Your task to perform on an android device: change the clock display to analog Image 0: 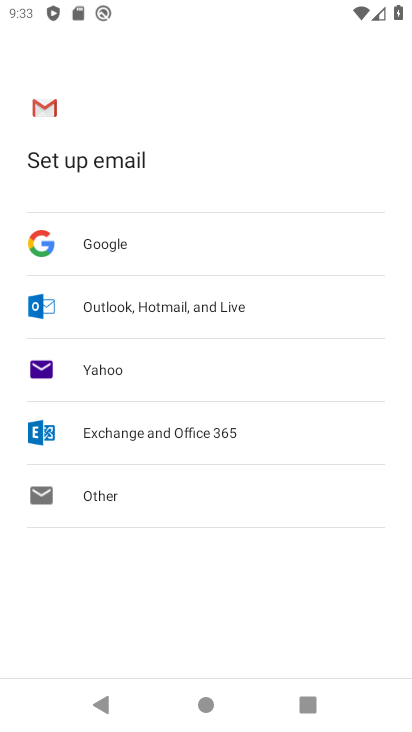
Step 0: press home button
Your task to perform on an android device: change the clock display to analog Image 1: 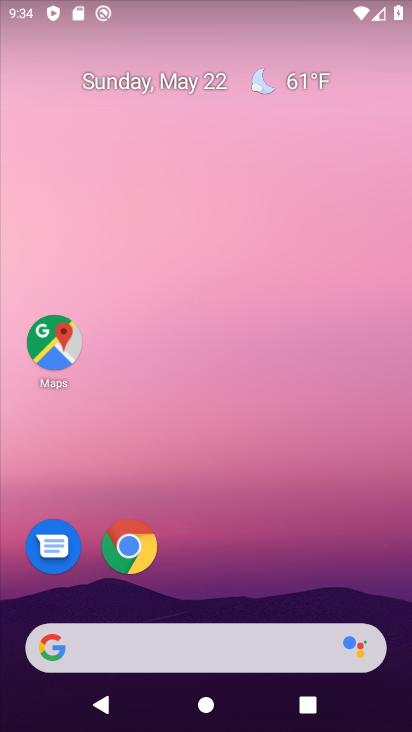
Step 1: drag from (218, 636) to (190, 15)
Your task to perform on an android device: change the clock display to analog Image 2: 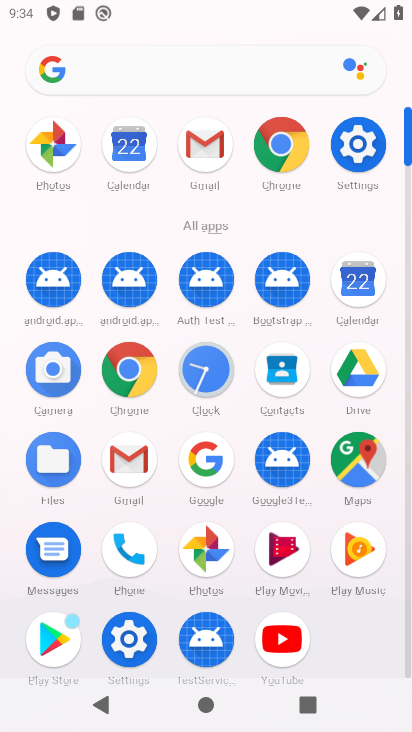
Step 2: click (216, 373)
Your task to perform on an android device: change the clock display to analog Image 3: 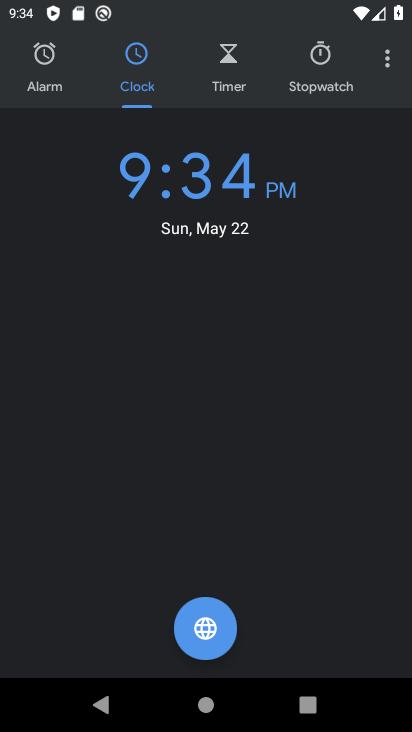
Step 3: click (387, 56)
Your task to perform on an android device: change the clock display to analog Image 4: 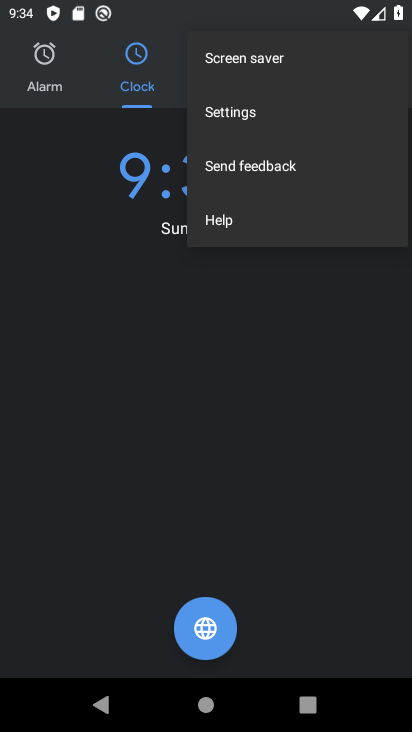
Step 4: click (247, 126)
Your task to perform on an android device: change the clock display to analog Image 5: 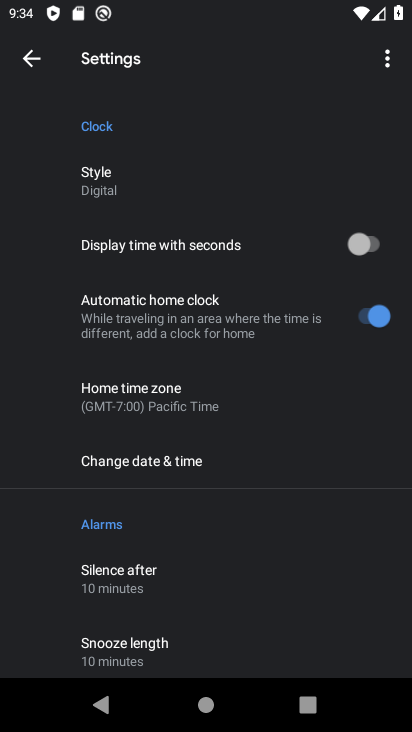
Step 5: click (135, 188)
Your task to perform on an android device: change the clock display to analog Image 6: 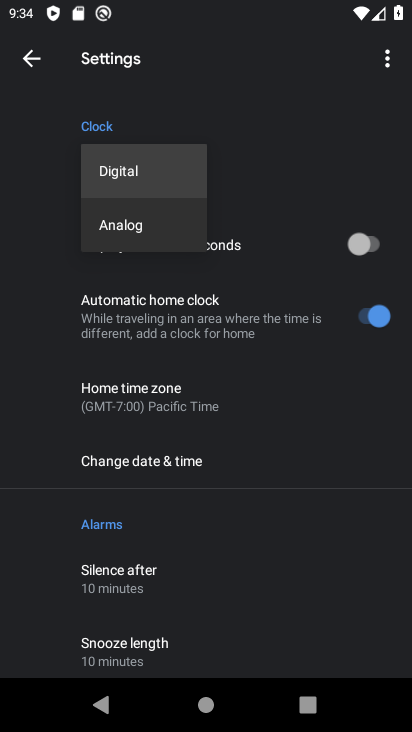
Step 6: click (127, 233)
Your task to perform on an android device: change the clock display to analog Image 7: 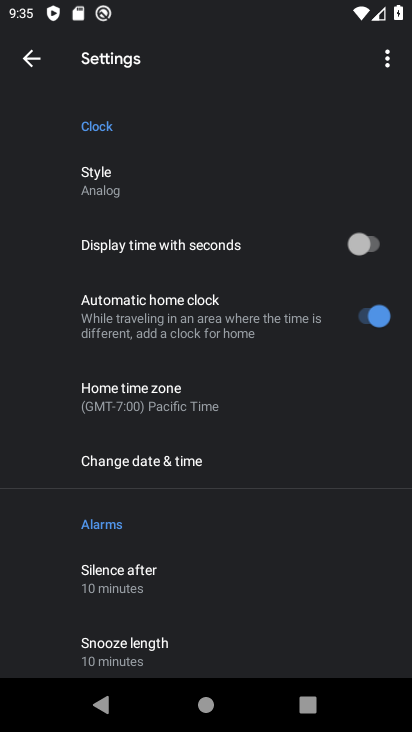
Step 7: task complete